Your task to perform on an android device: Open Google Chrome and open the bookmarks view Image 0: 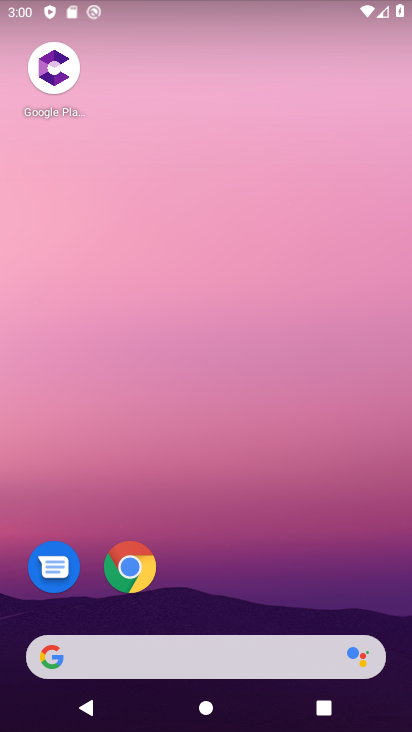
Step 0: click (131, 561)
Your task to perform on an android device: Open Google Chrome and open the bookmarks view Image 1: 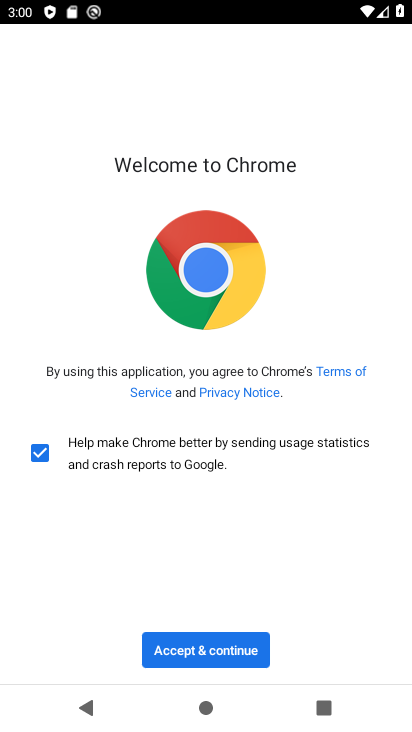
Step 1: click (217, 654)
Your task to perform on an android device: Open Google Chrome and open the bookmarks view Image 2: 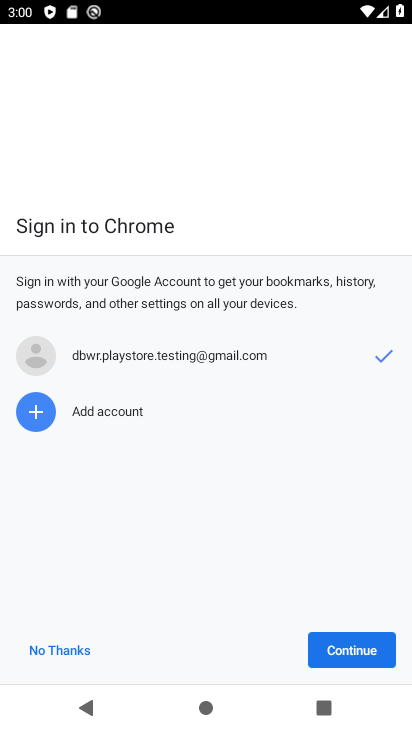
Step 2: click (365, 650)
Your task to perform on an android device: Open Google Chrome and open the bookmarks view Image 3: 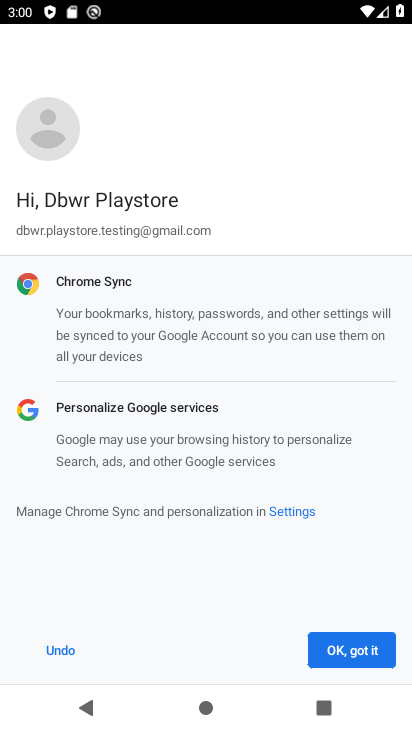
Step 3: click (365, 650)
Your task to perform on an android device: Open Google Chrome and open the bookmarks view Image 4: 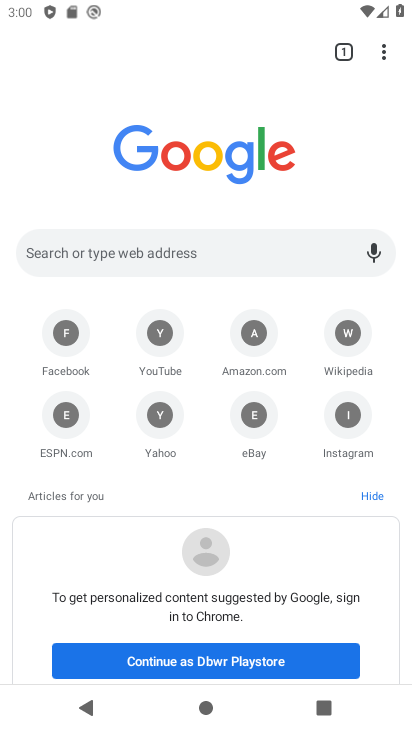
Step 4: task complete